Your task to perform on an android device: Clear all items from cart on ebay.com. Search for "razer deathadder" on ebay.com, select the first entry, add it to the cart, then select checkout. Image 0: 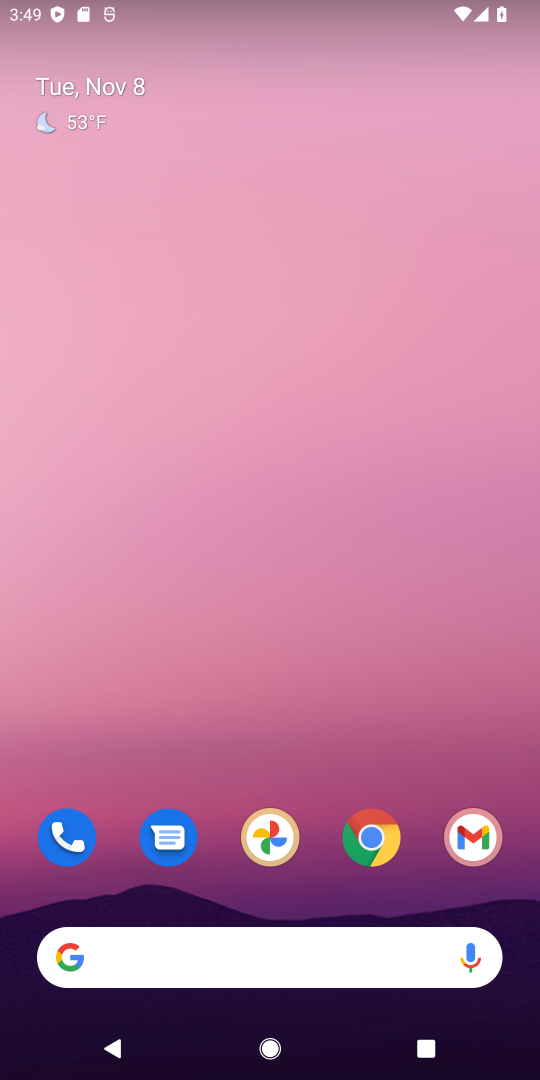
Step 0: click (366, 844)
Your task to perform on an android device: Clear all items from cart on ebay.com. Search for "razer deathadder" on ebay.com, select the first entry, add it to the cart, then select checkout. Image 1: 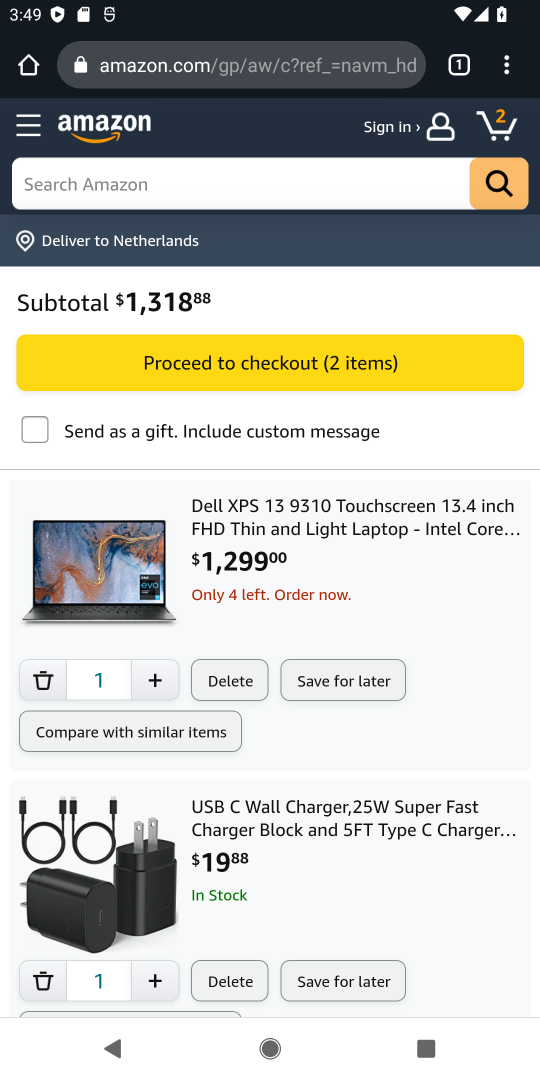
Step 1: click (144, 58)
Your task to perform on an android device: Clear all items from cart on ebay.com. Search for "razer deathadder" on ebay.com, select the first entry, add it to the cart, then select checkout. Image 2: 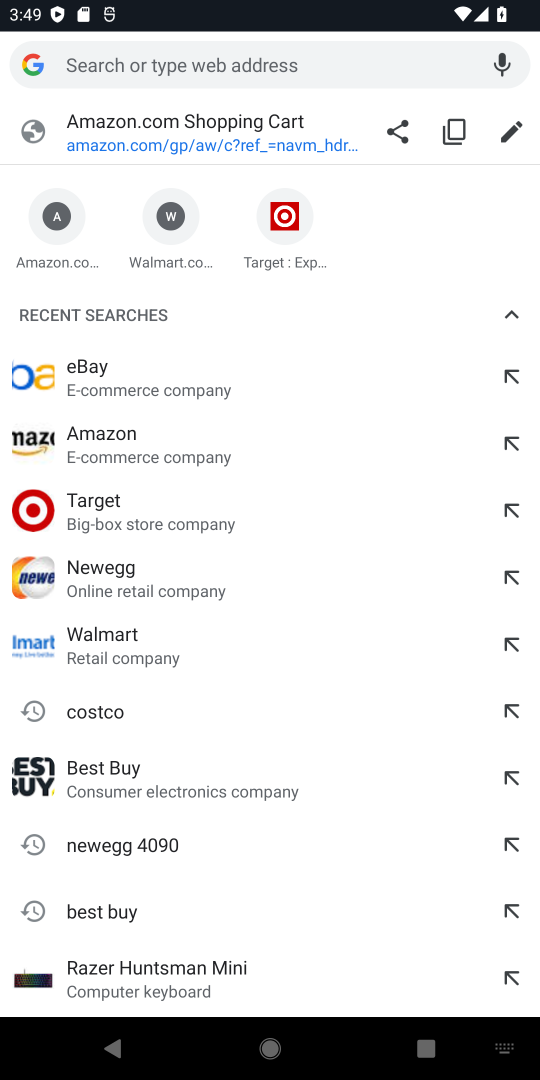
Step 2: click (93, 375)
Your task to perform on an android device: Clear all items from cart on ebay.com. Search for "razer deathadder" on ebay.com, select the first entry, add it to the cart, then select checkout. Image 3: 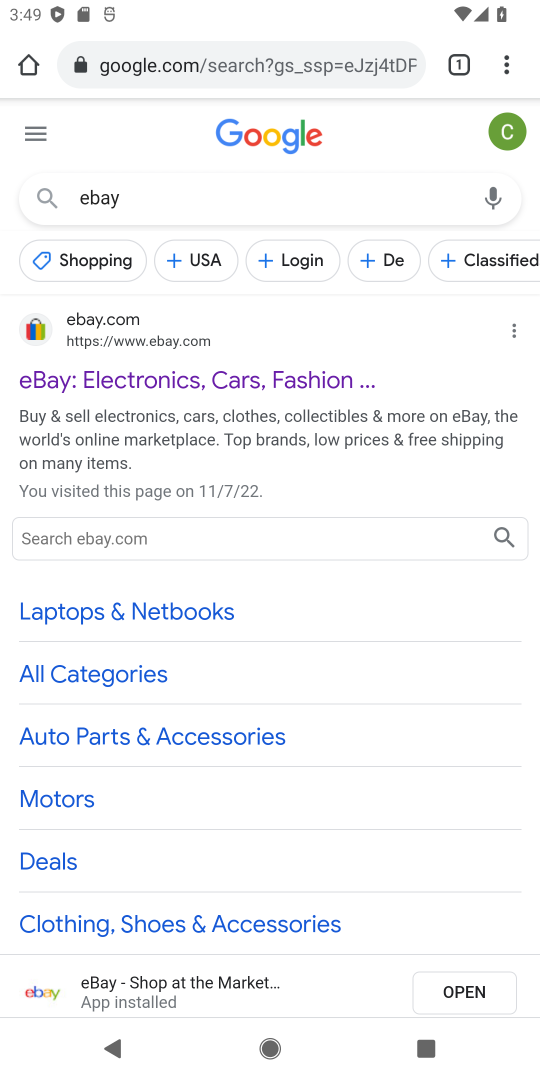
Step 3: click (97, 379)
Your task to perform on an android device: Clear all items from cart on ebay.com. Search for "razer deathadder" on ebay.com, select the first entry, add it to the cart, then select checkout. Image 4: 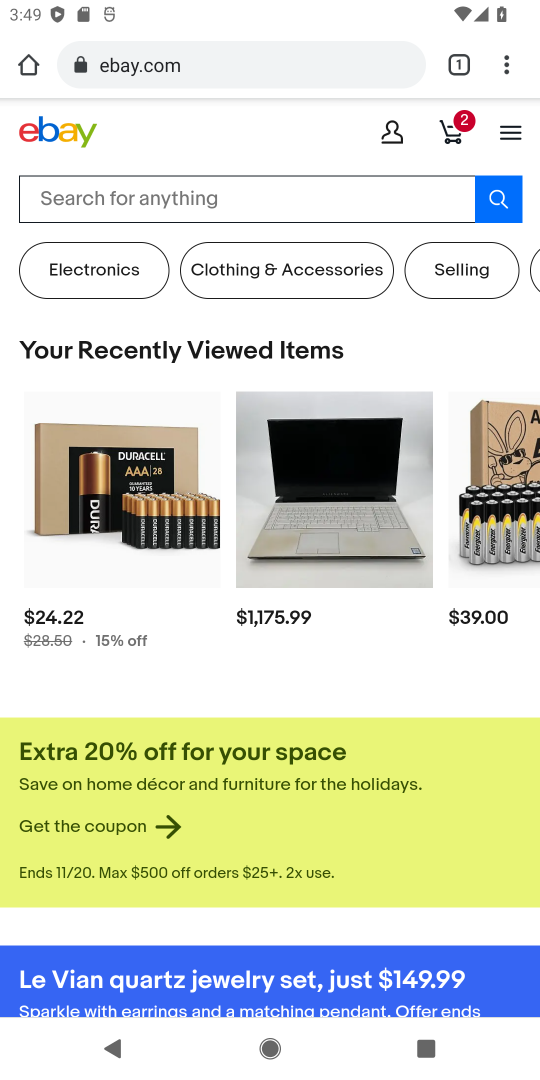
Step 4: click (217, 206)
Your task to perform on an android device: Clear all items from cart on ebay.com. Search for "razer deathadder" on ebay.com, select the first entry, add it to the cart, then select checkout. Image 5: 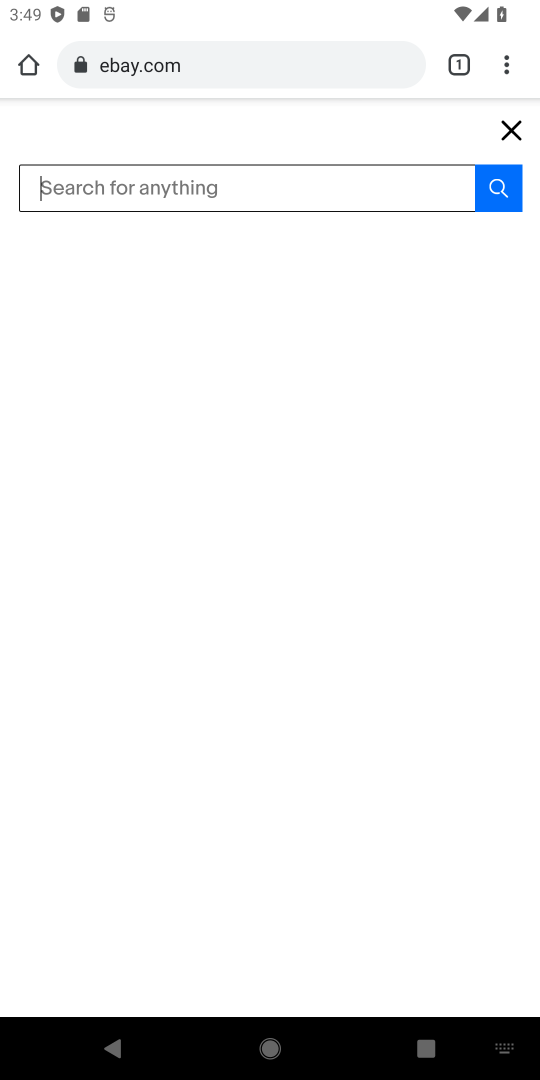
Step 5: type "razer deathadder"
Your task to perform on an android device: Clear all items from cart on ebay.com. Search for "razer deathadder" on ebay.com, select the first entry, add it to the cart, then select checkout. Image 6: 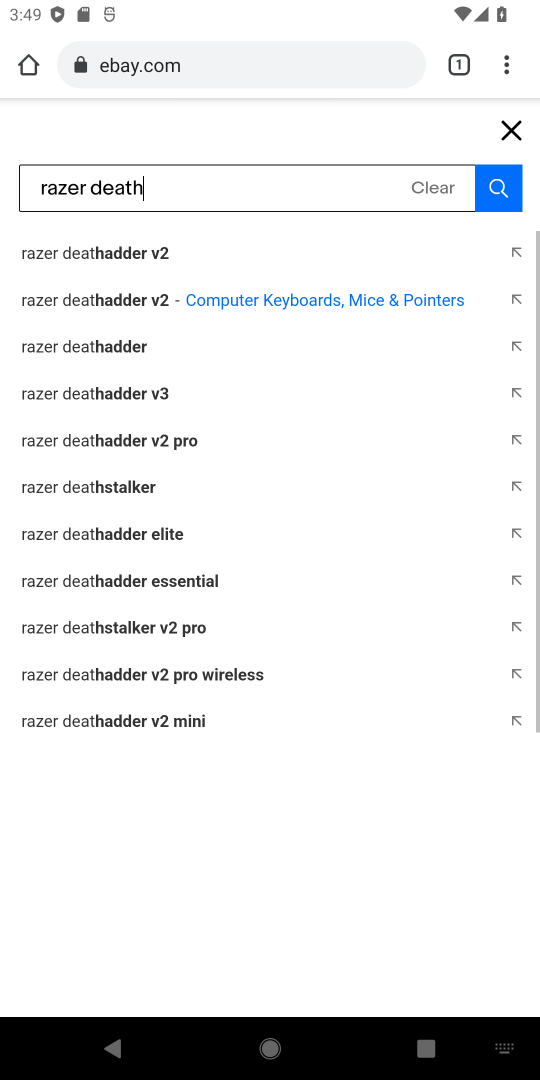
Step 6: type ""
Your task to perform on an android device: Clear all items from cart on ebay.com. Search for "razer deathadder" on ebay.com, select the first entry, add it to the cart, then select checkout. Image 7: 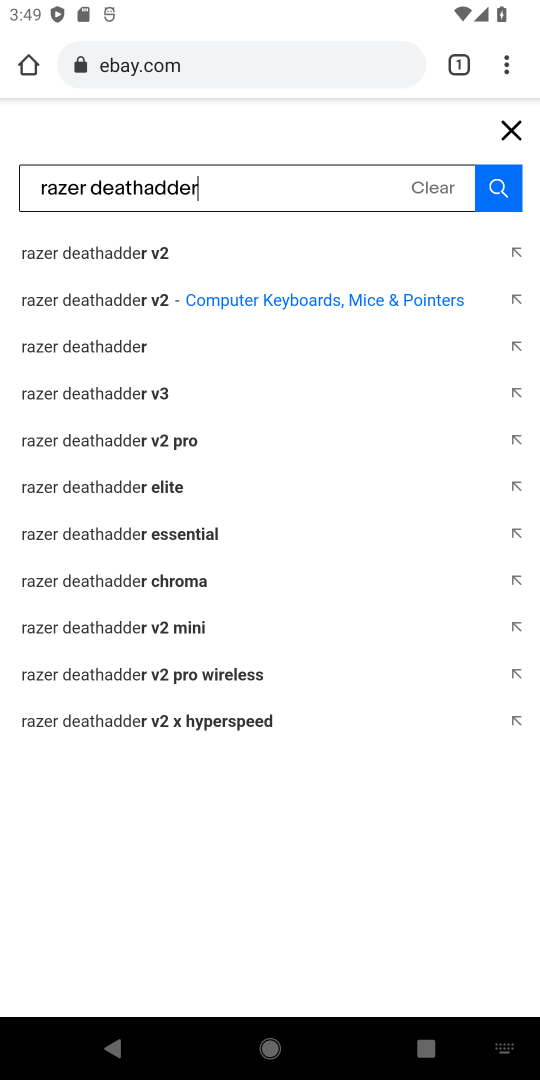
Step 7: click (82, 252)
Your task to perform on an android device: Clear all items from cart on ebay.com. Search for "razer deathadder" on ebay.com, select the first entry, add it to the cart, then select checkout. Image 8: 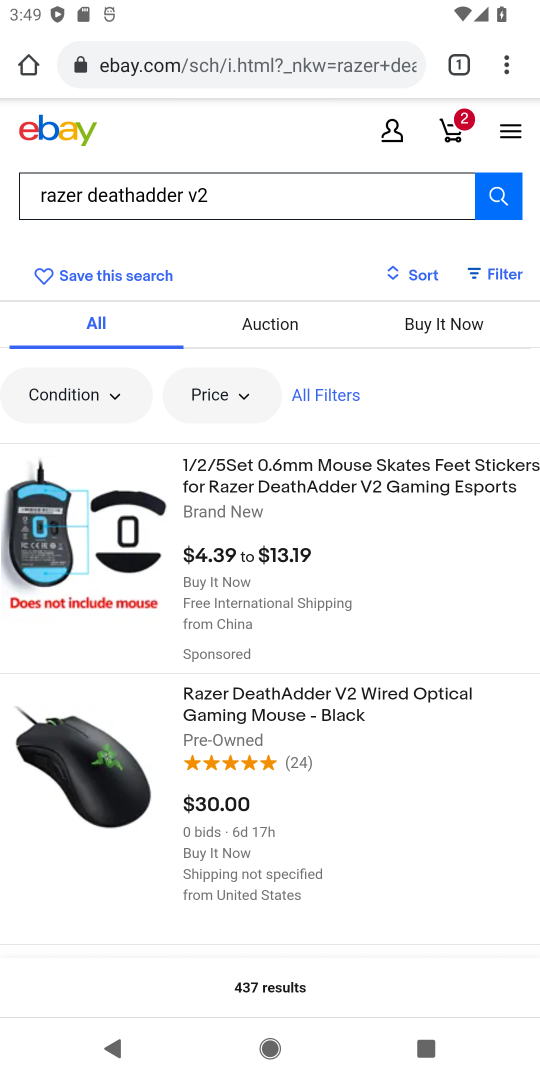
Step 8: click (307, 700)
Your task to perform on an android device: Clear all items from cart on ebay.com. Search for "razer deathadder" on ebay.com, select the first entry, add it to the cart, then select checkout. Image 9: 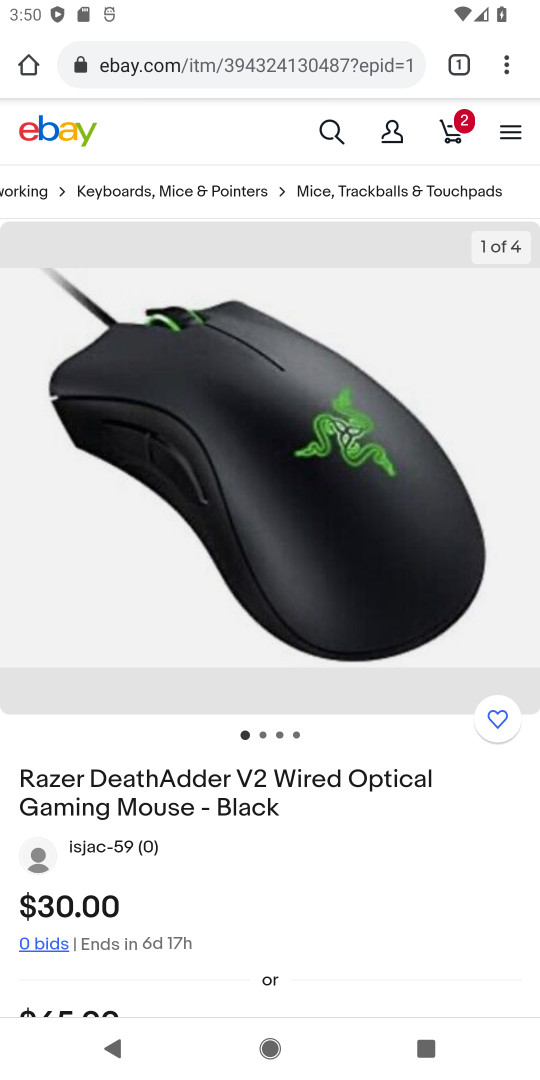
Step 9: drag from (302, 889) to (324, 255)
Your task to perform on an android device: Clear all items from cart on ebay.com. Search for "razer deathadder" on ebay.com, select the first entry, add it to the cart, then select checkout. Image 10: 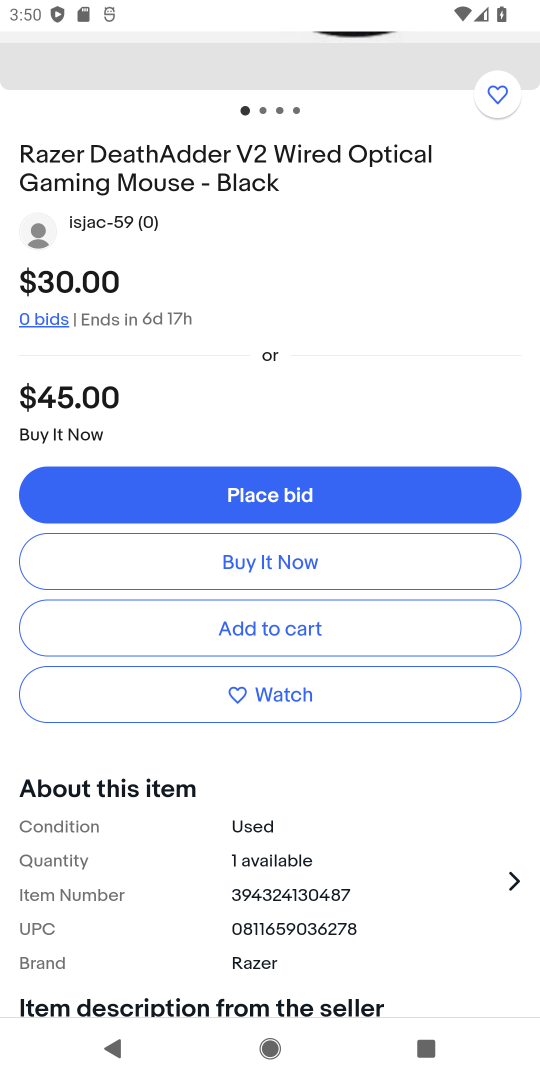
Step 10: click (257, 620)
Your task to perform on an android device: Clear all items from cart on ebay.com. Search for "razer deathadder" on ebay.com, select the first entry, add it to the cart, then select checkout. Image 11: 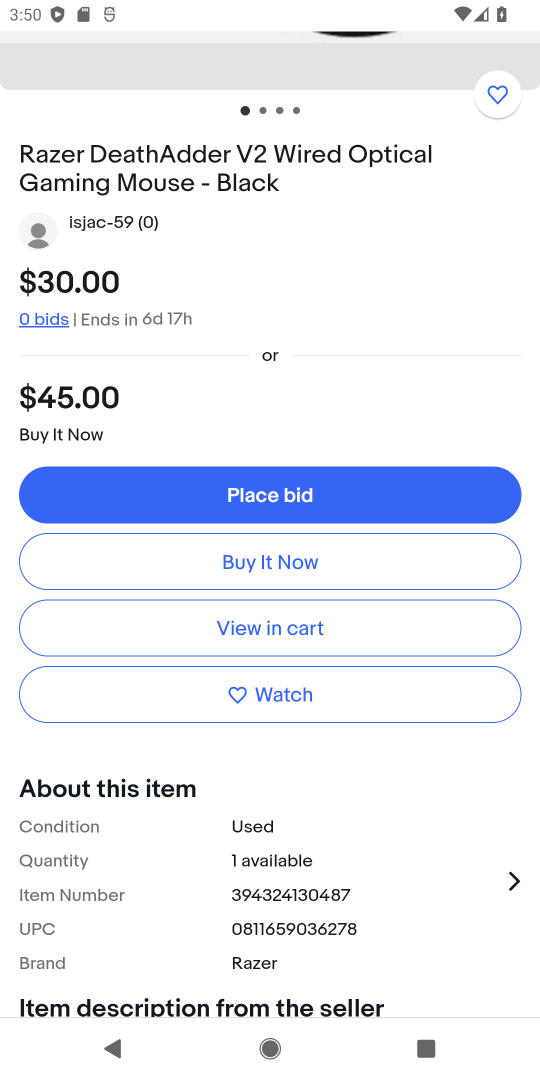
Step 11: click (247, 620)
Your task to perform on an android device: Clear all items from cart on ebay.com. Search for "razer deathadder" on ebay.com, select the first entry, add it to the cart, then select checkout. Image 12: 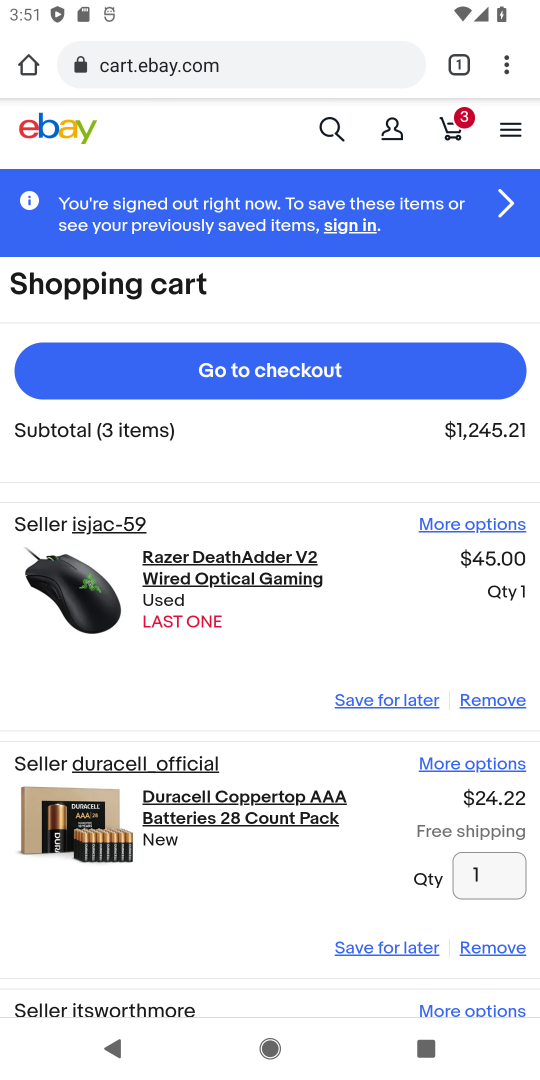
Step 12: click (248, 370)
Your task to perform on an android device: Clear all items from cart on ebay.com. Search for "razer deathadder" on ebay.com, select the first entry, add it to the cart, then select checkout. Image 13: 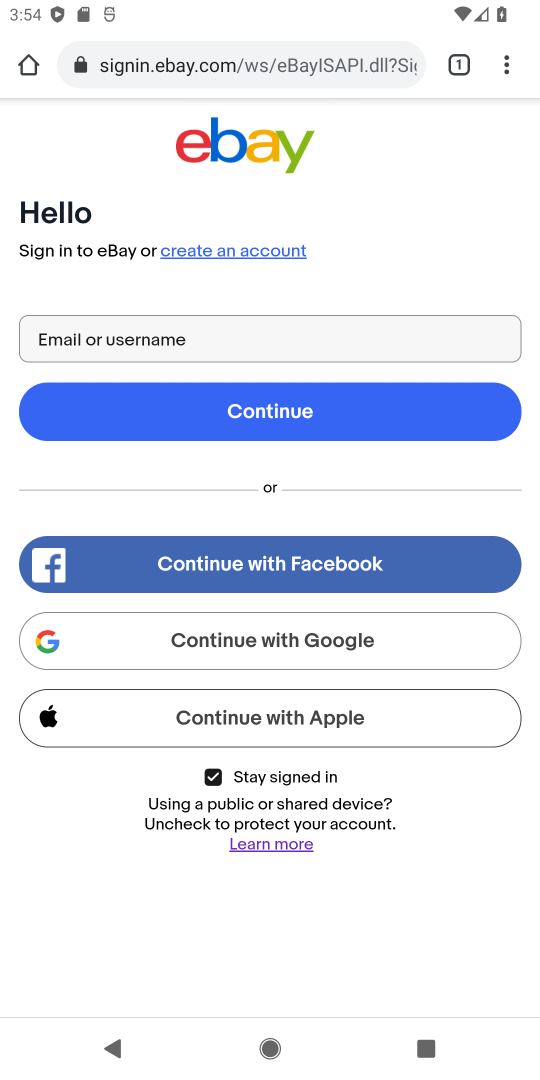
Step 13: task complete